Your task to perform on an android device: Open Google Maps Image 0: 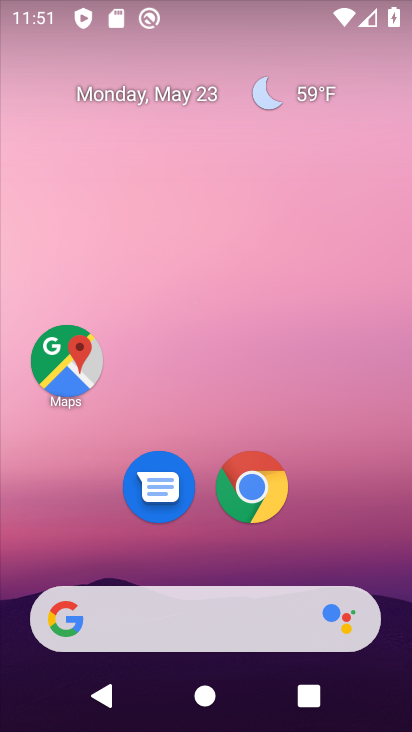
Step 0: drag from (213, 532) to (193, 53)
Your task to perform on an android device: Open Google Maps Image 1: 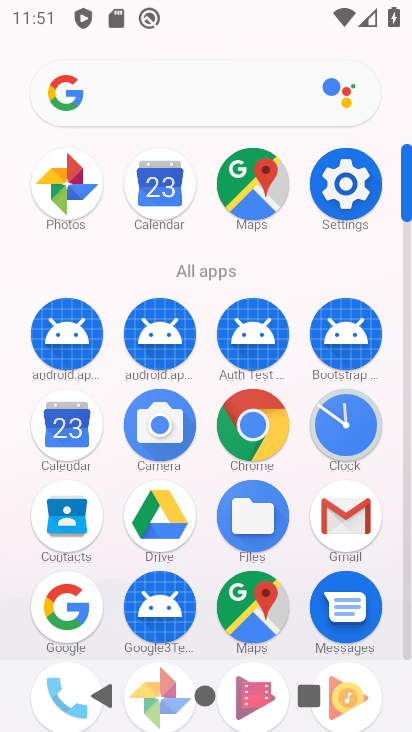
Step 1: click (246, 607)
Your task to perform on an android device: Open Google Maps Image 2: 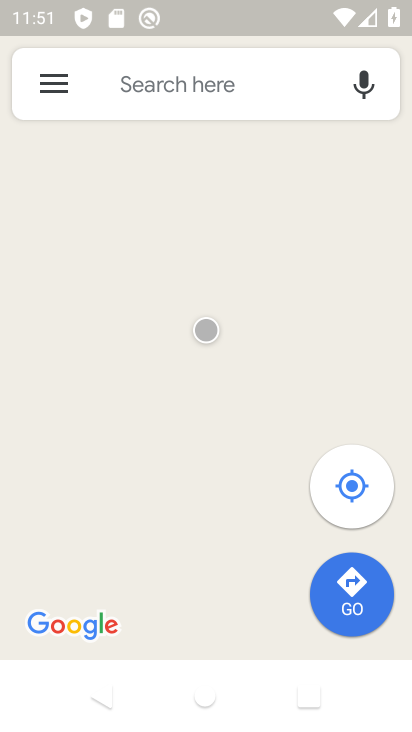
Step 2: task complete